Your task to perform on an android device: toggle pop-ups in chrome Image 0: 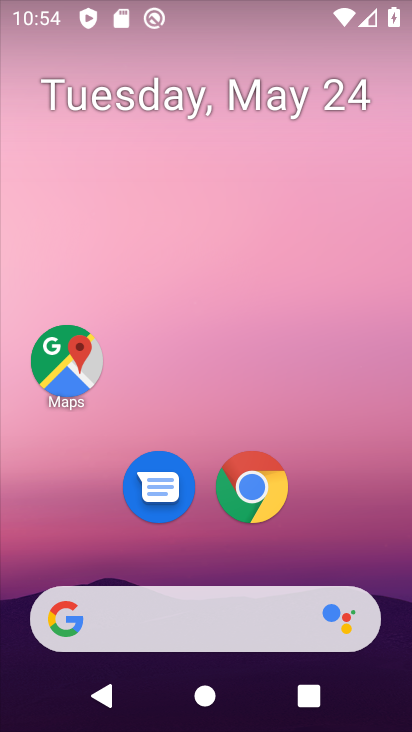
Step 0: click (243, 492)
Your task to perform on an android device: toggle pop-ups in chrome Image 1: 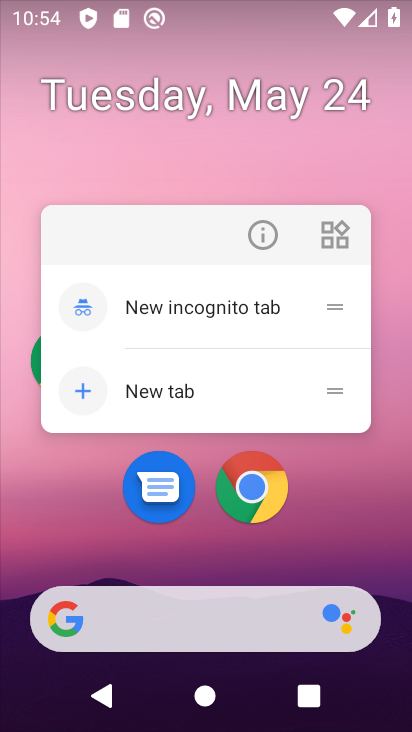
Step 1: click (255, 482)
Your task to perform on an android device: toggle pop-ups in chrome Image 2: 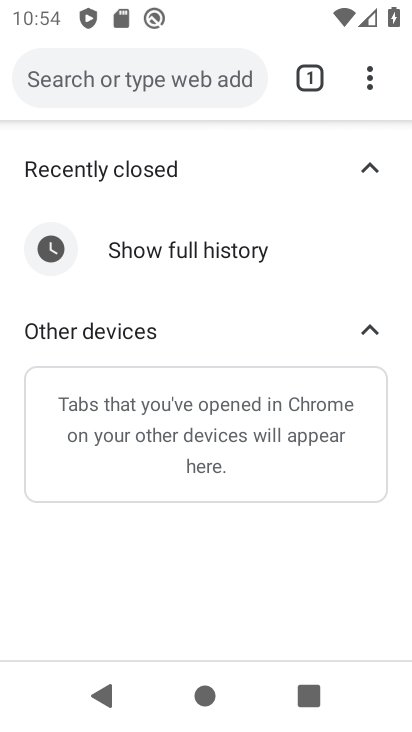
Step 2: drag from (369, 73) to (99, 541)
Your task to perform on an android device: toggle pop-ups in chrome Image 3: 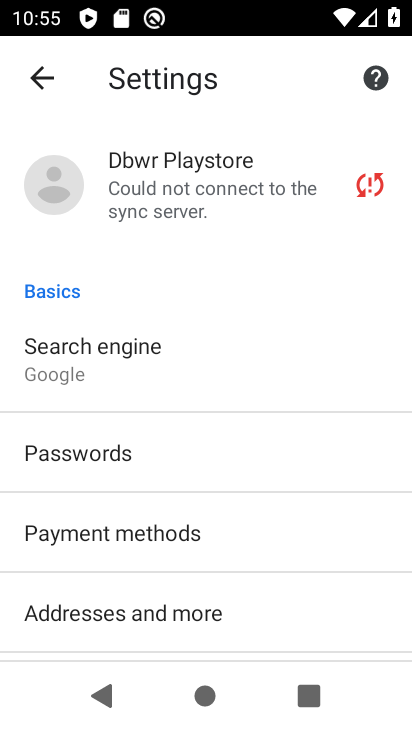
Step 3: drag from (153, 548) to (305, 102)
Your task to perform on an android device: toggle pop-ups in chrome Image 4: 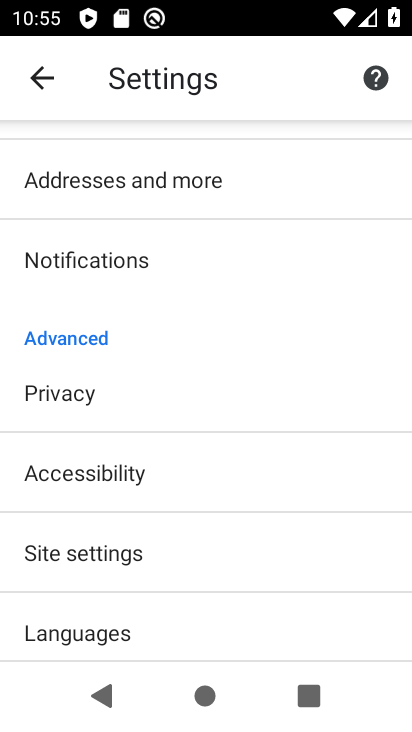
Step 4: click (85, 556)
Your task to perform on an android device: toggle pop-ups in chrome Image 5: 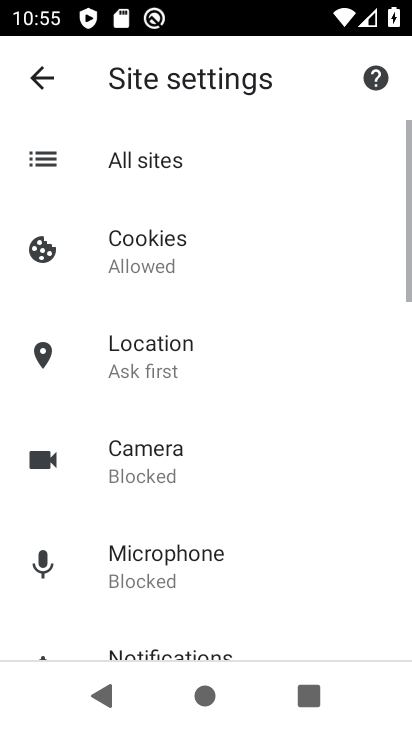
Step 5: drag from (161, 618) to (309, 88)
Your task to perform on an android device: toggle pop-ups in chrome Image 6: 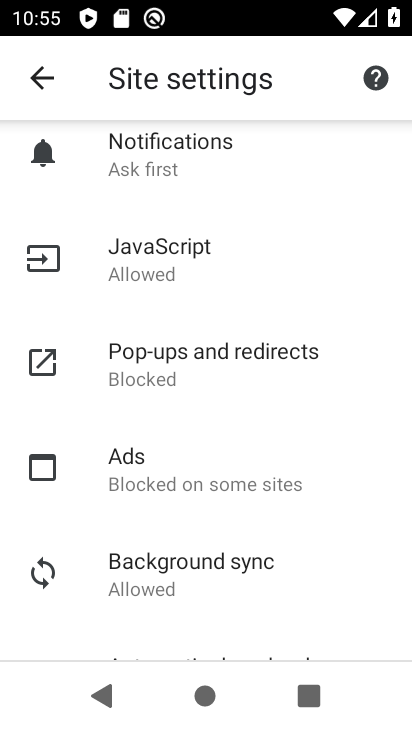
Step 6: click (141, 358)
Your task to perform on an android device: toggle pop-ups in chrome Image 7: 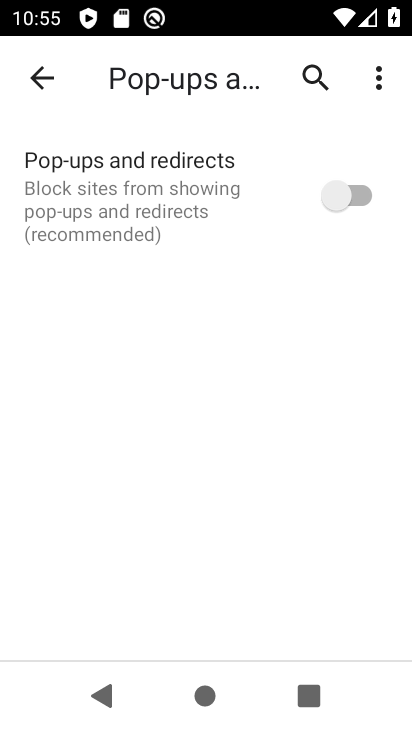
Step 7: click (335, 186)
Your task to perform on an android device: toggle pop-ups in chrome Image 8: 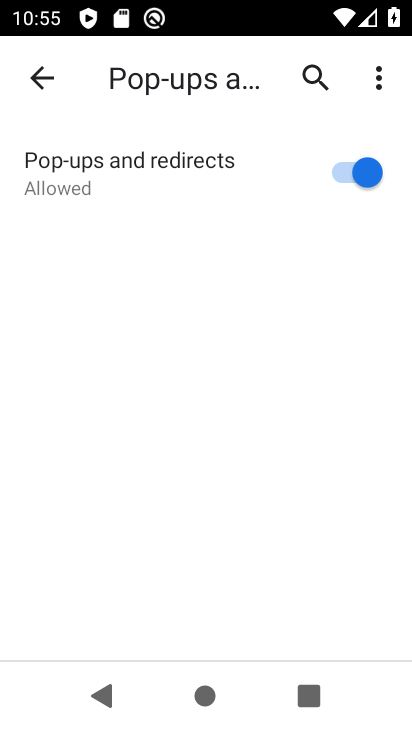
Step 8: task complete